Your task to perform on an android device: Is it going to rain tomorrow? Image 0: 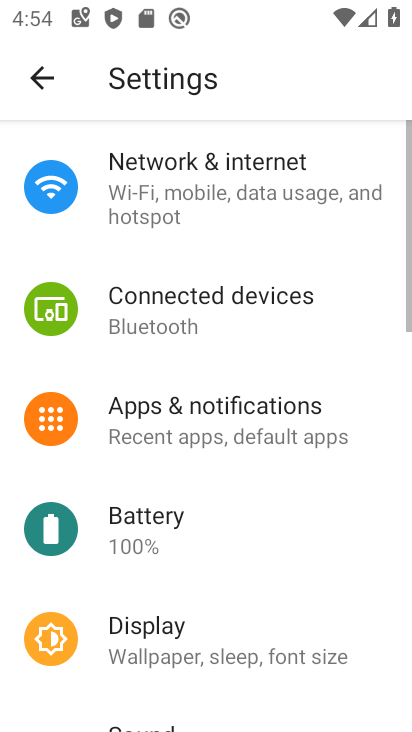
Step 0: press home button
Your task to perform on an android device: Is it going to rain tomorrow? Image 1: 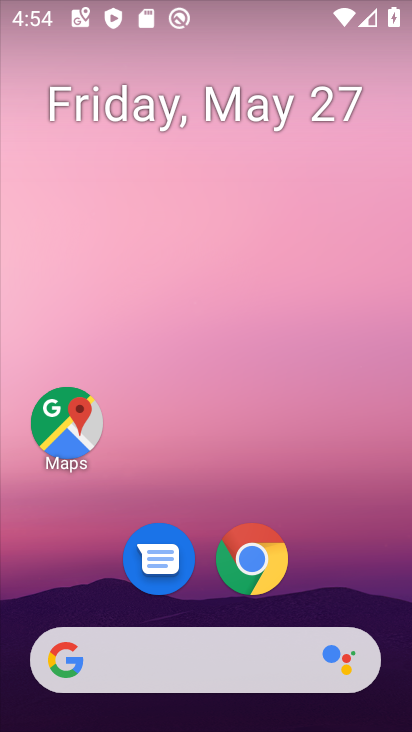
Step 1: click (246, 553)
Your task to perform on an android device: Is it going to rain tomorrow? Image 2: 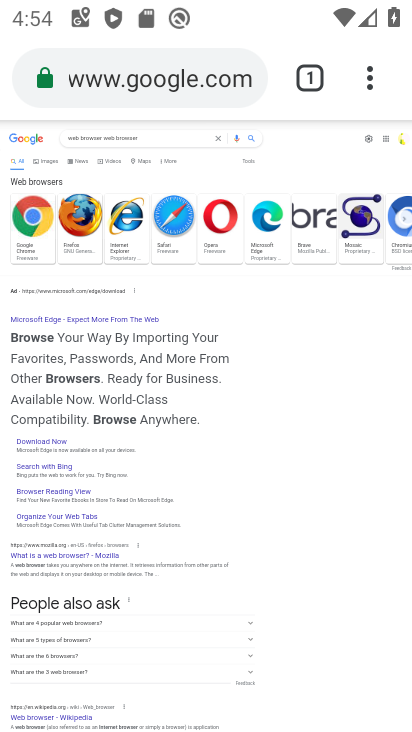
Step 2: click (193, 78)
Your task to perform on an android device: Is it going to rain tomorrow? Image 3: 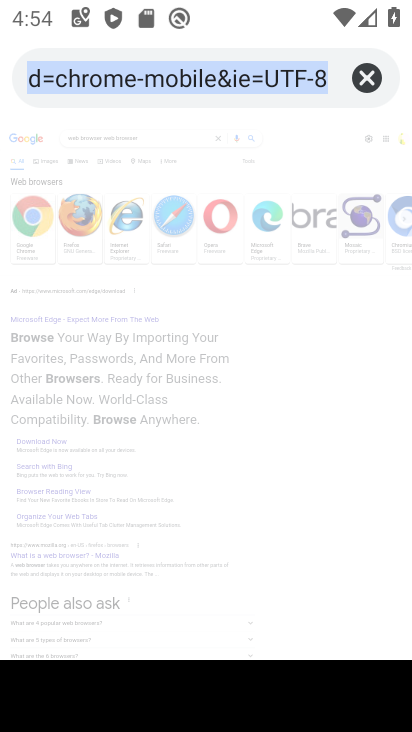
Step 3: click (368, 80)
Your task to perform on an android device: Is it going to rain tomorrow? Image 4: 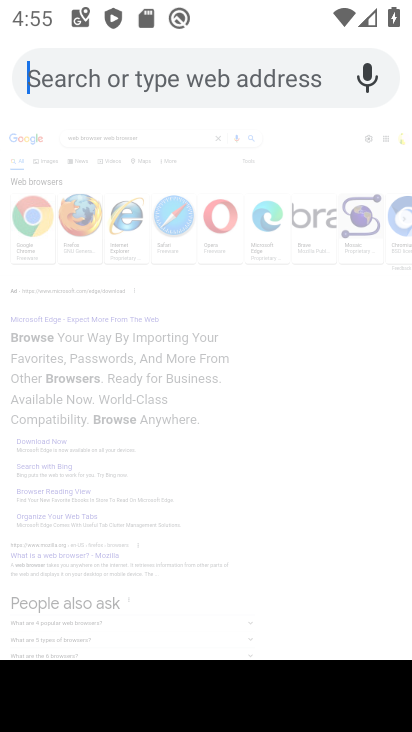
Step 4: type "Is it going to rain tomorrow?"
Your task to perform on an android device: Is it going to rain tomorrow? Image 5: 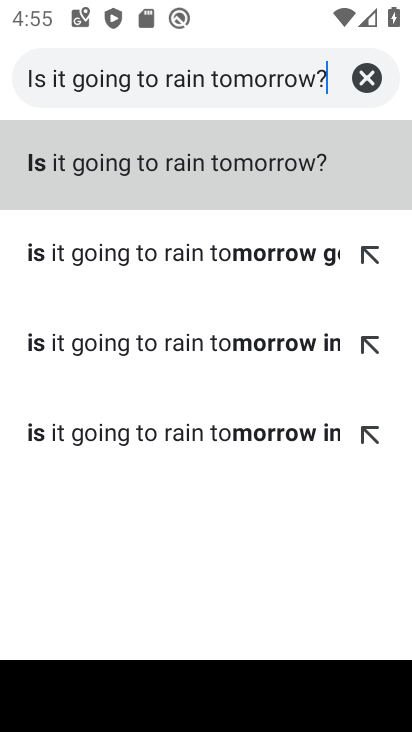
Step 5: click (232, 151)
Your task to perform on an android device: Is it going to rain tomorrow? Image 6: 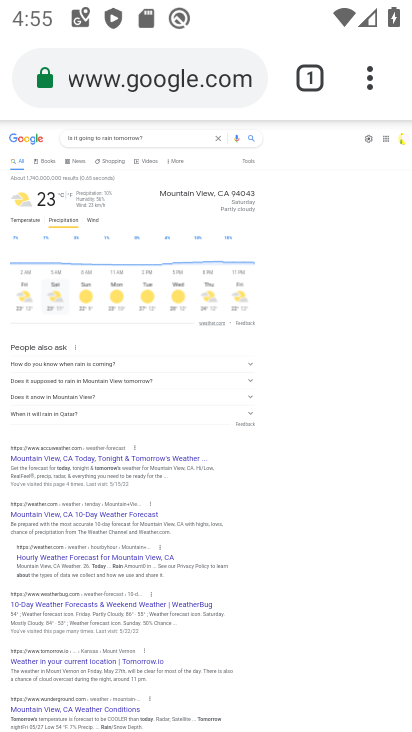
Step 6: task complete